Your task to perform on an android device: Search for pizza restaurants on Maps Image 0: 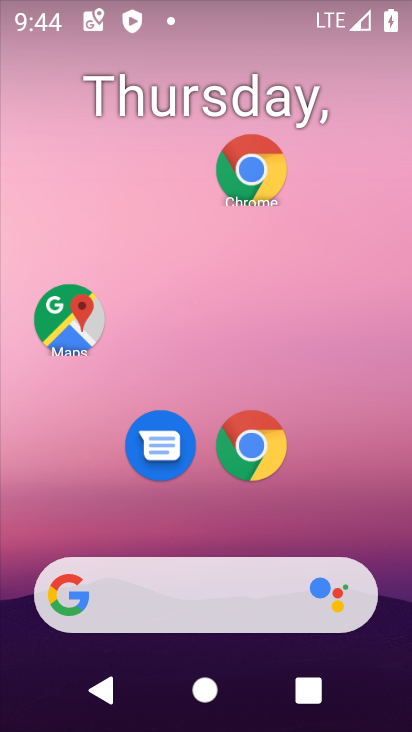
Step 0: drag from (225, 542) to (217, 72)
Your task to perform on an android device: Search for pizza restaurants on Maps Image 1: 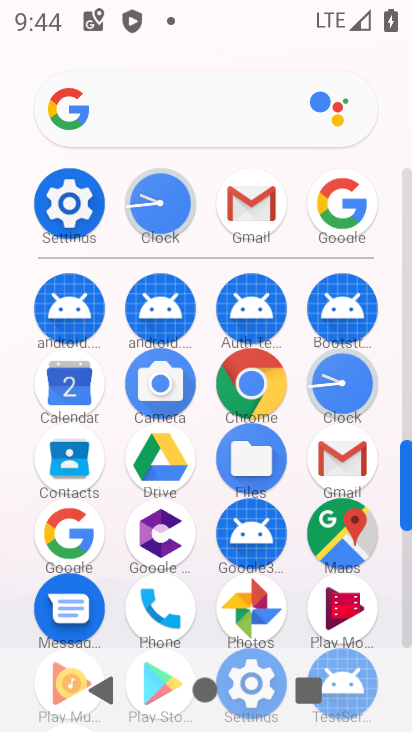
Step 1: click (345, 538)
Your task to perform on an android device: Search for pizza restaurants on Maps Image 2: 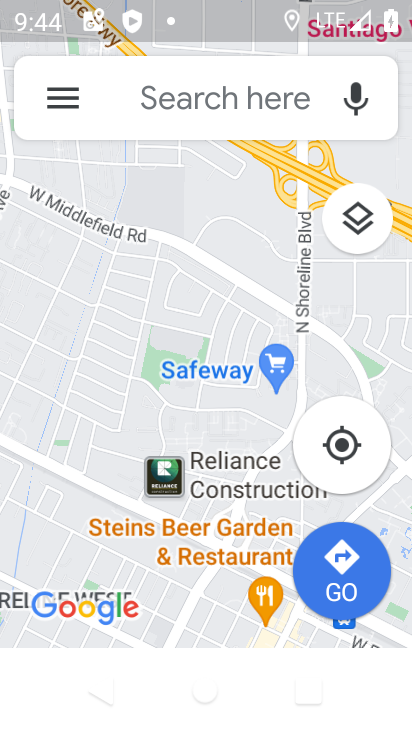
Step 2: click (152, 116)
Your task to perform on an android device: Search for pizza restaurants on Maps Image 3: 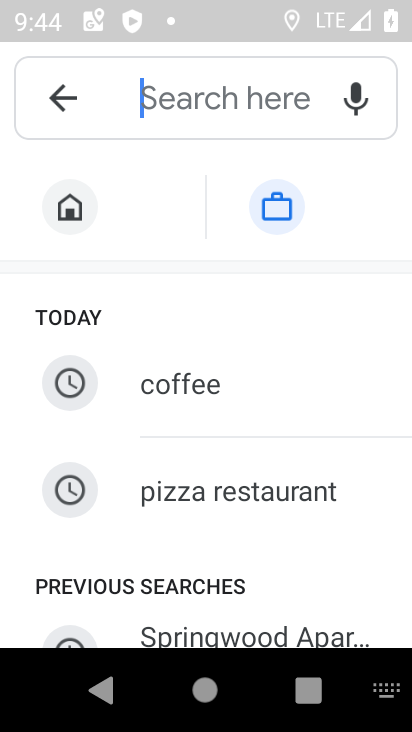
Step 3: click (243, 503)
Your task to perform on an android device: Search for pizza restaurants on Maps Image 4: 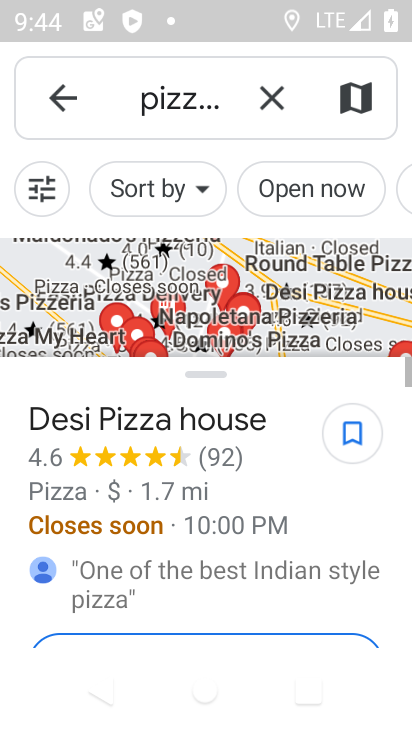
Step 4: task complete